Your task to perform on an android device: open a bookmark in the chrome app Image 0: 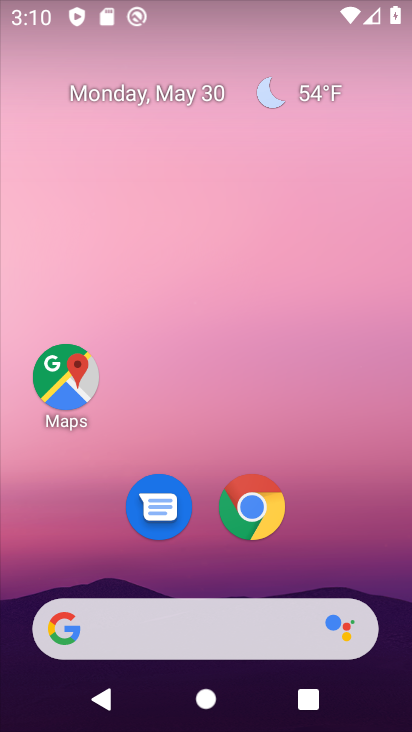
Step 0: click (254, 508)
Your task to perform on an android device: open a bookmark in the chrome app Image 1: 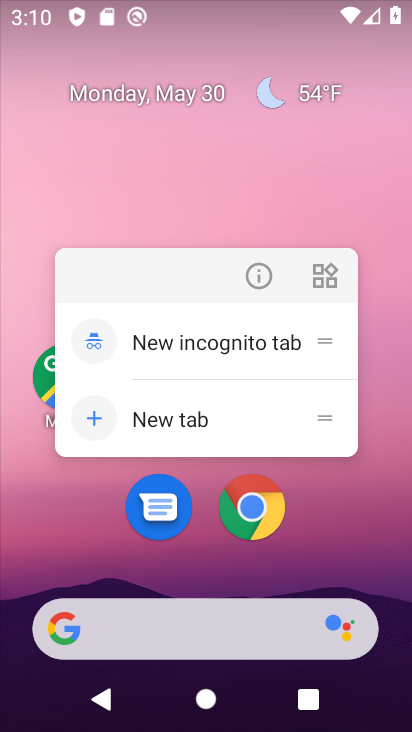
Step 1: click (251, 520)
Your task to perform on an android device: open a bookmark in the chrome app Image 2: 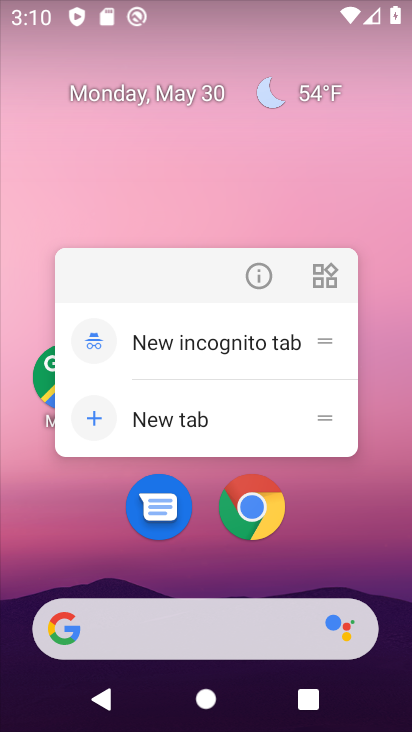
Step 2: click (272, 520)
Your task to perform on an android device: open a bookmark in the chrome app Image 3: 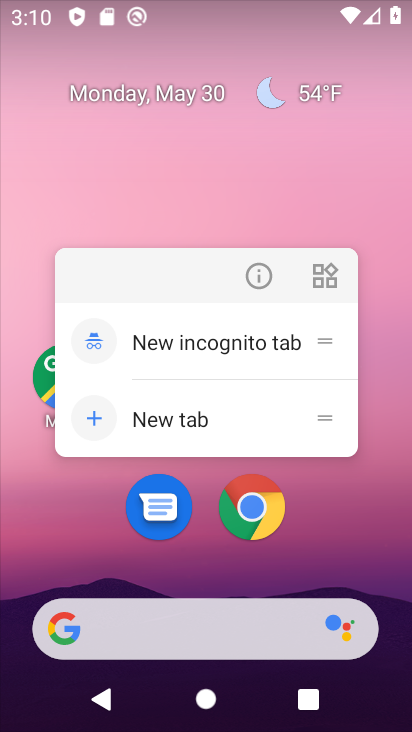
Step 3: click (285, 553)
Your task to perform on an android device: open a bookmark in the chrome app Image 4: 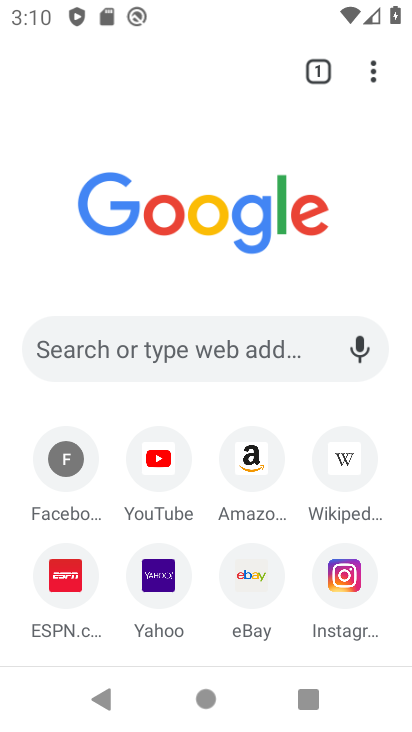
Step 4: task complete